Your task to perform on an android device: See recent photos Image 0: 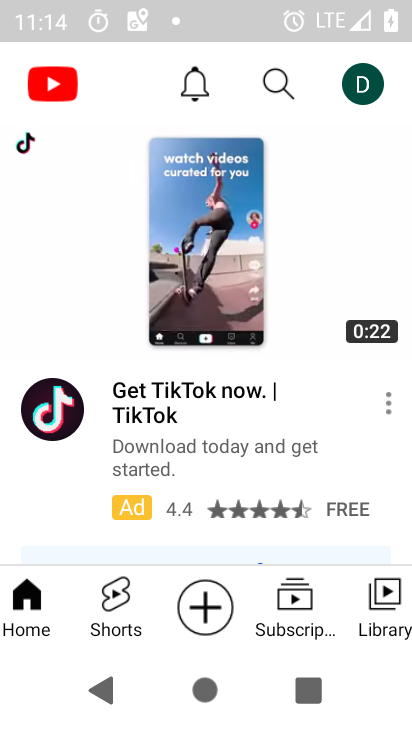
Step 0: press home button
Your task to perform on an android device: See recent photos Image 1: 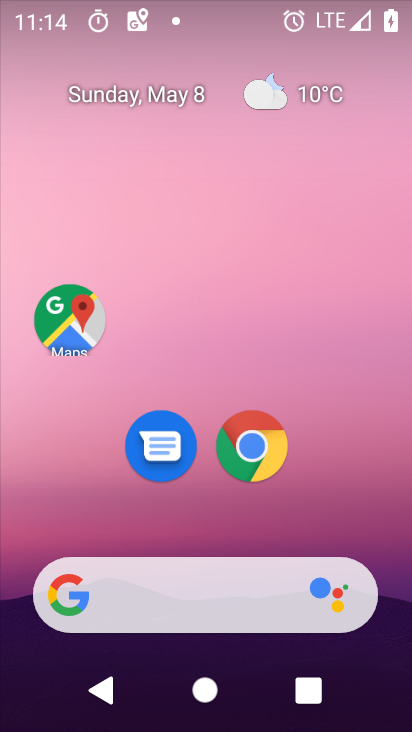
Step 1: drag from (383, 566) to (399, 4)
Your task to perform on an android device: See recent photos Image 2: 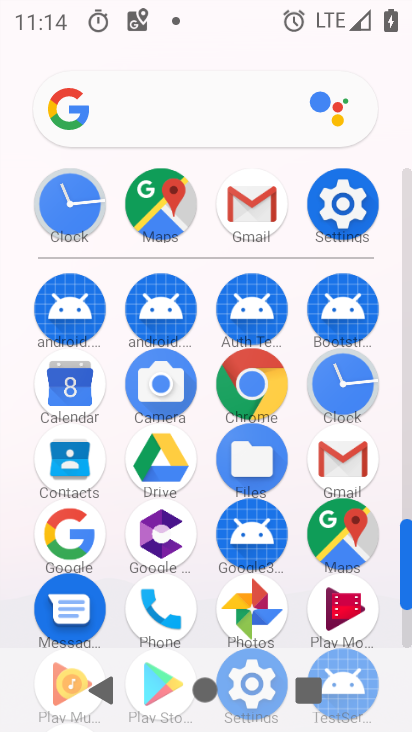
Step 2: click (238, 604)
Your task to perform on an android device: See recent photos Image 3: 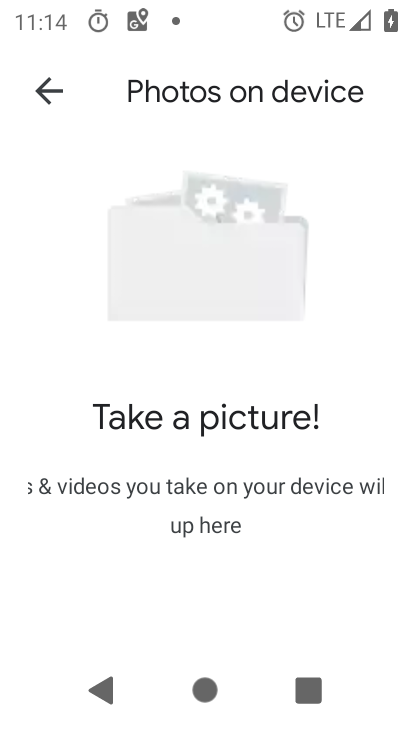
Step 3: click (49, 97)
Your task to perform on an android device: See recent photos Image 4: 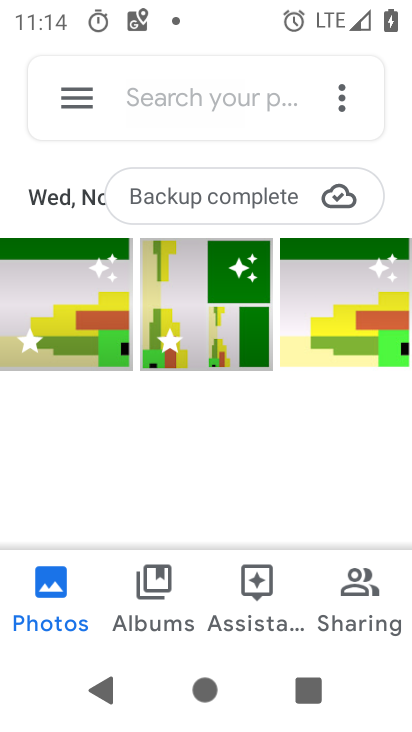
Step 4: click (78, 104)
Your task to perform on an android device: See recent photos Image 5: 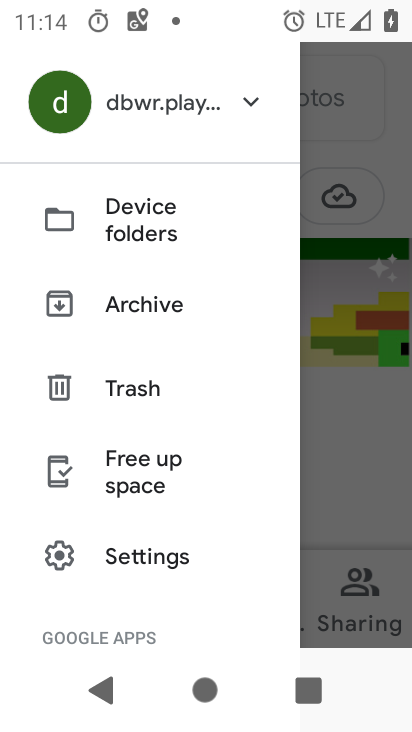
Step 5: task complete